Your task to perform on an android device: Open Android settings Image 0: 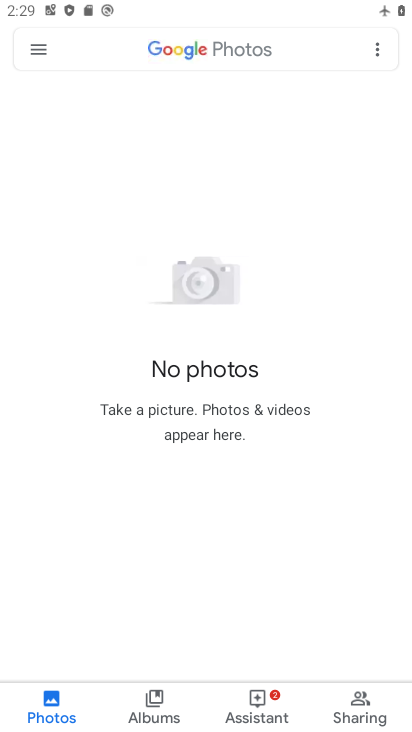
Step 0: press home button
Your task to perform on an android device: Open Android settings Image 1: 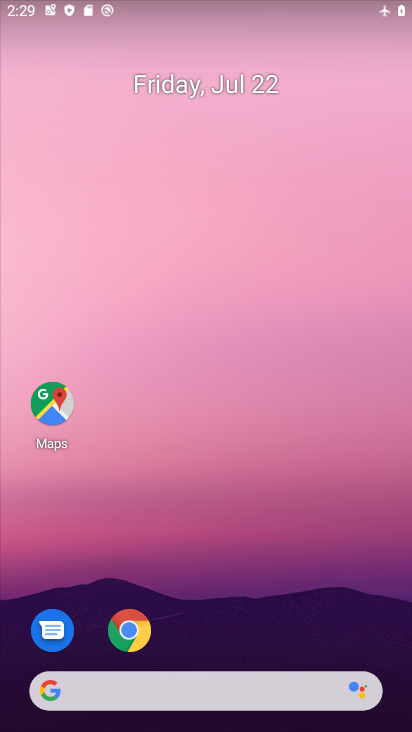
Step 1: drag from (217, 684) to (124, 55)
Your task to perform on an android device: Open Android settings Image 2: 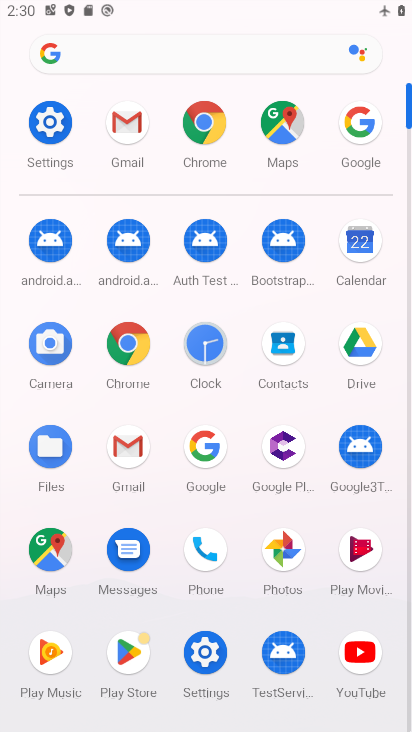
Step 2: click (56, 125)
Your task to perform on an android device: Open Android settings Image 3: 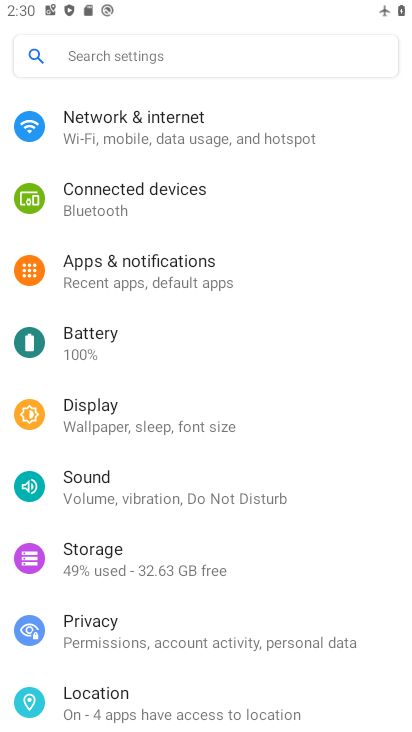
Step 3: task complete